Your task to perform on an android device: check google app version Image 0: 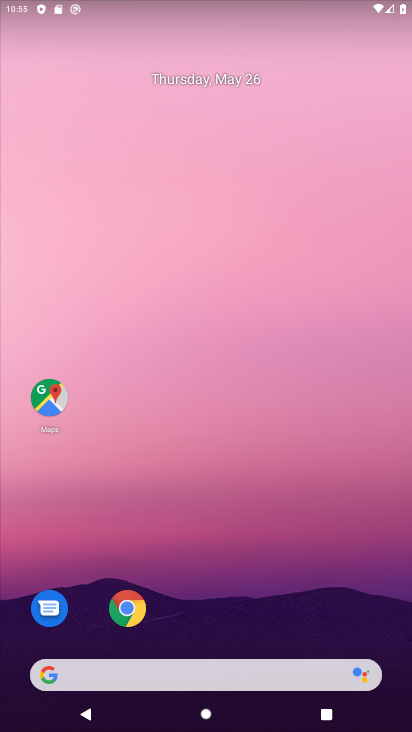
Step 0: drag from (207, 562) to (112, 42)
Your task to perform on an android device: check google app version Image 1: 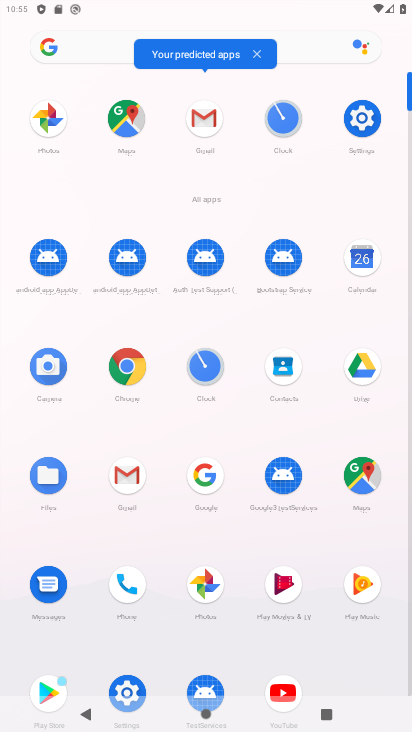
Step 1: click (205, 472)
Your task to perform on an android device: check google app version Image 2: 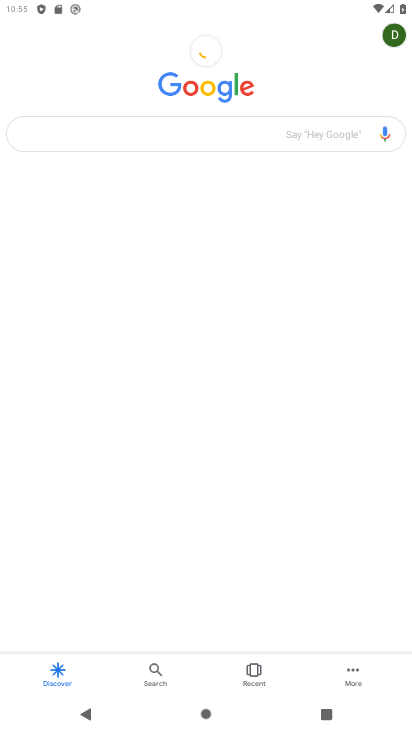
Step 2: click (355, 673)
Your task to perform on an android device: check google app version Image 3: 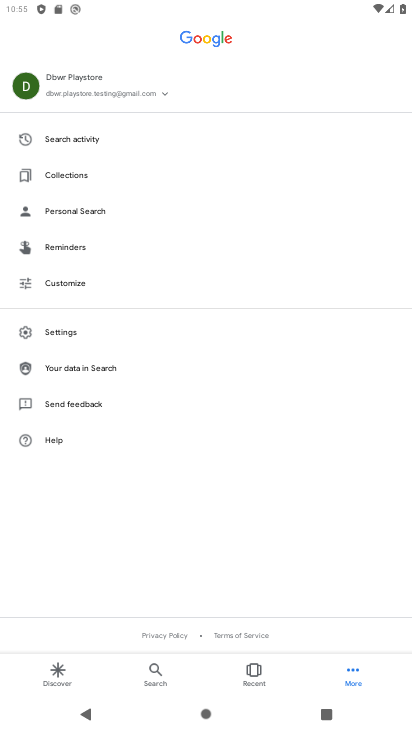
Step 3: drag from (143, 512) to (4, 194)
Your task to perform on an android device: check google app version Image 4: 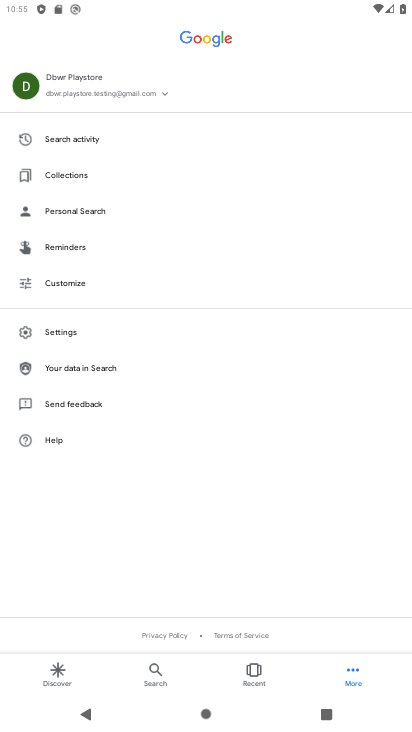
Step 4: click (56, 329)
Your task to perform on an android device: check google app version Image 5: 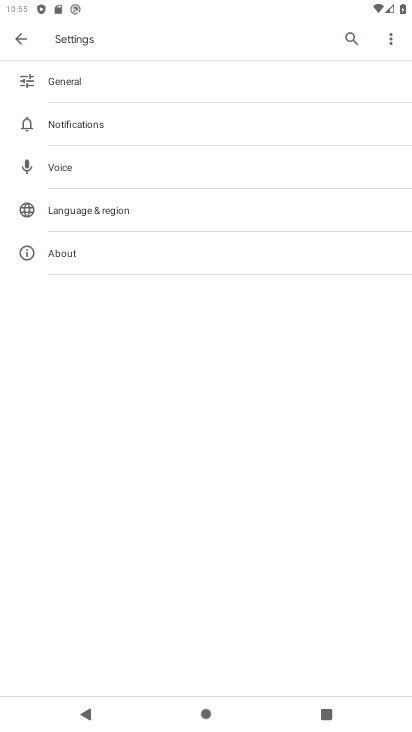
Step 5: click (63, 250)
Your task to perform on an android device: check google app version Image 6: 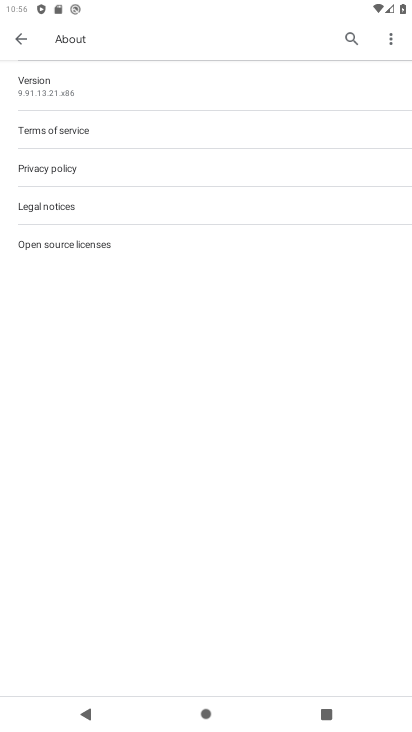
Step 6: task complete